Your task to perform on an android device: open a bookmark in the chrome app Image 0: 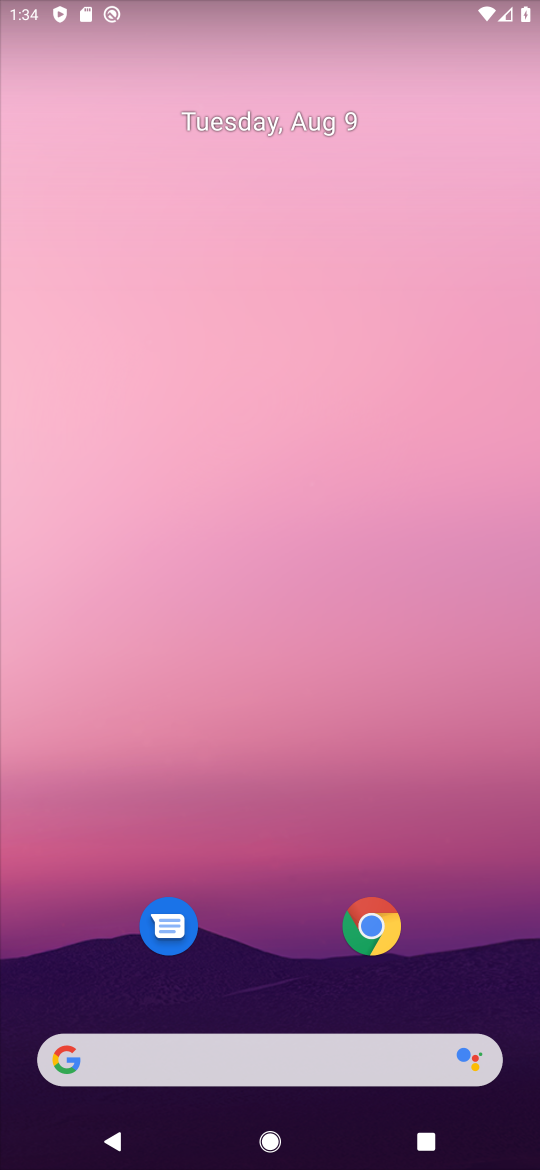
Step 0: click (358, 936)
Your task to perform on an android device: open a bookmark in the chrome app Image 1: 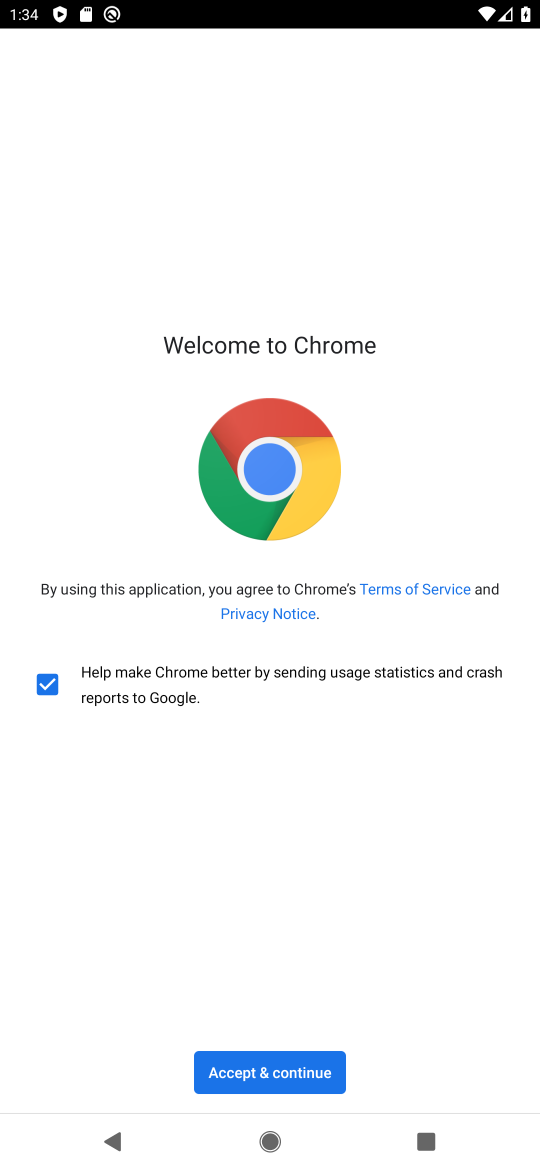
Step 1: click (291, 1096)
Your task to perform on an android device: open a bookmark in the chrome app Image 2: 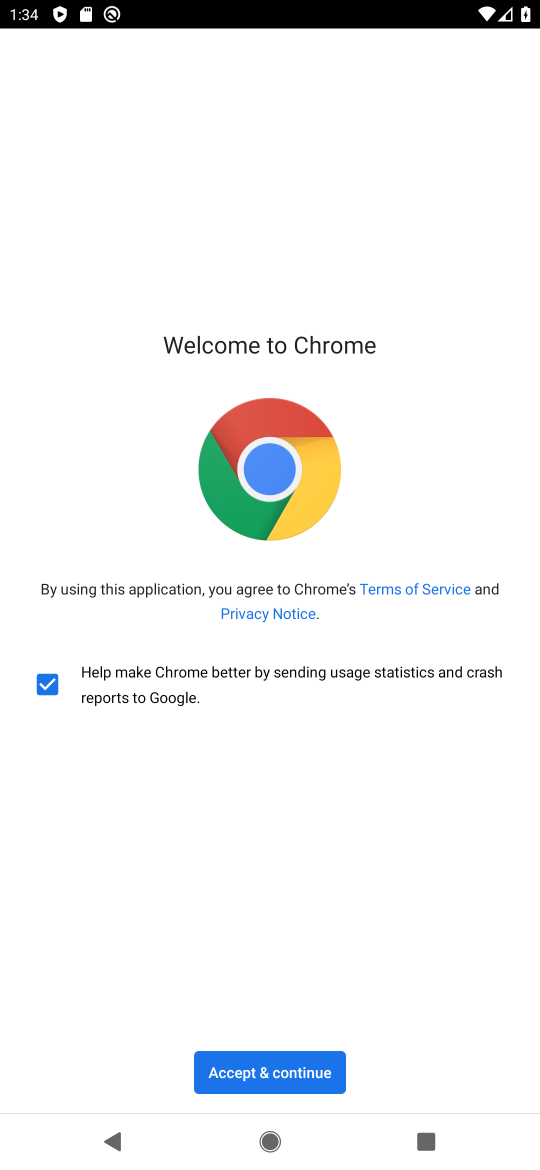
Step 2: click (331, 1075)
Your task to perform on an android device: open a bookmark in the chrome app Image 3: 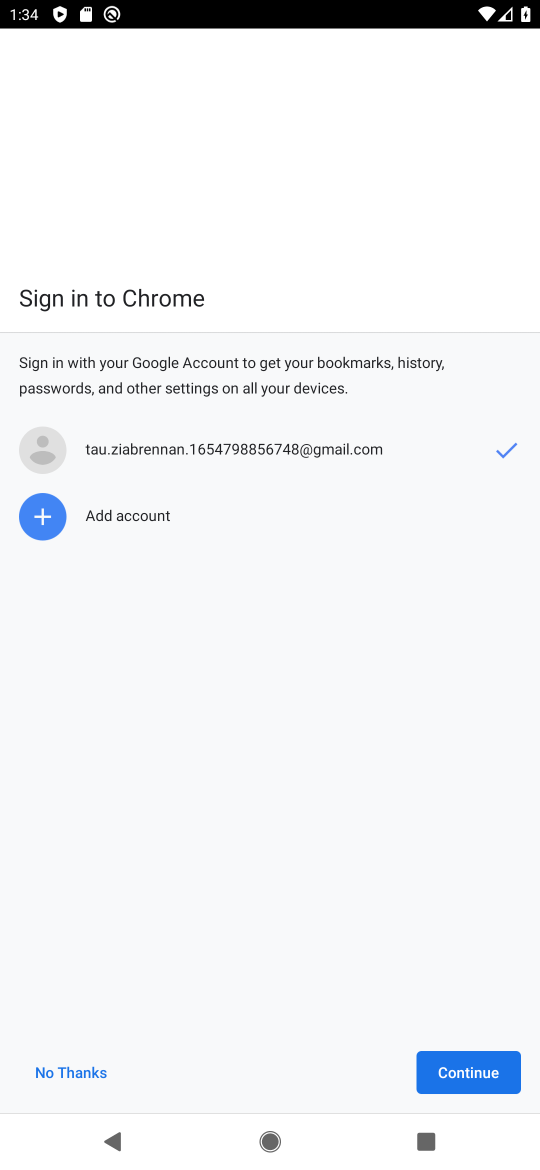
Step 3: click (485, 1086)
Your task to perform on an android device: open a bookmark in the chrome app Image 4: 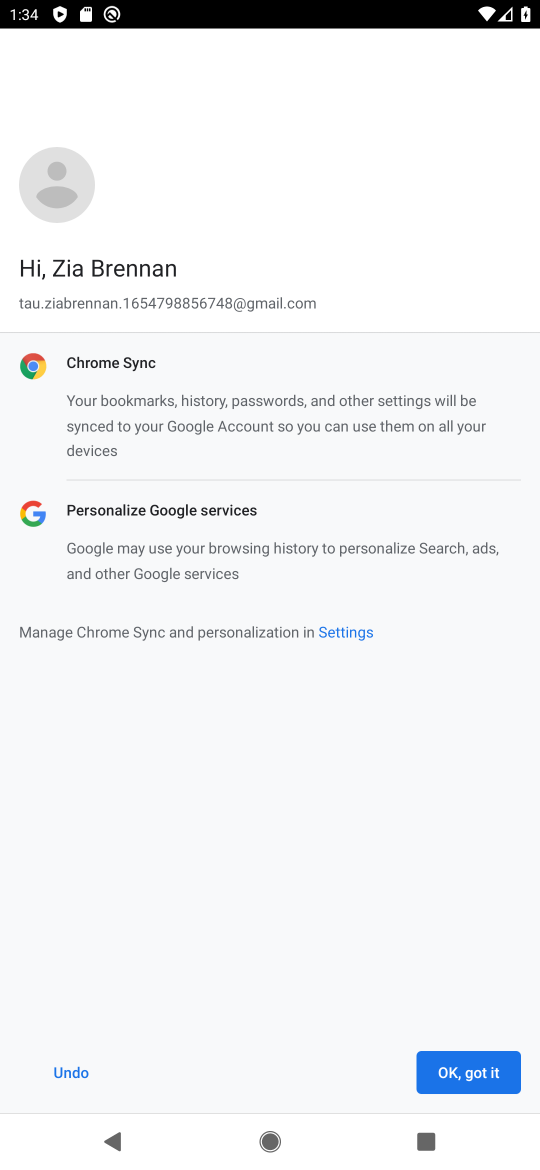
Step 4: click (485, 1086)
Your task to perform on an android device: open a bookmark in the chrome app Image 5: 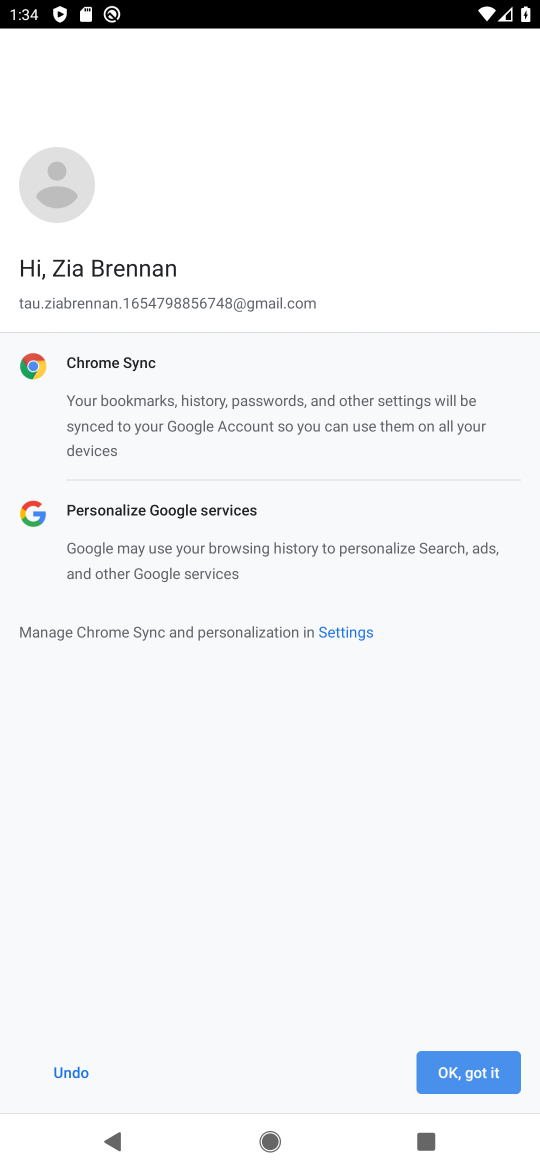
Step 5: click (485, 1086)
Your task to perform on an android device: open a bookmark in the chrome app Image 6: 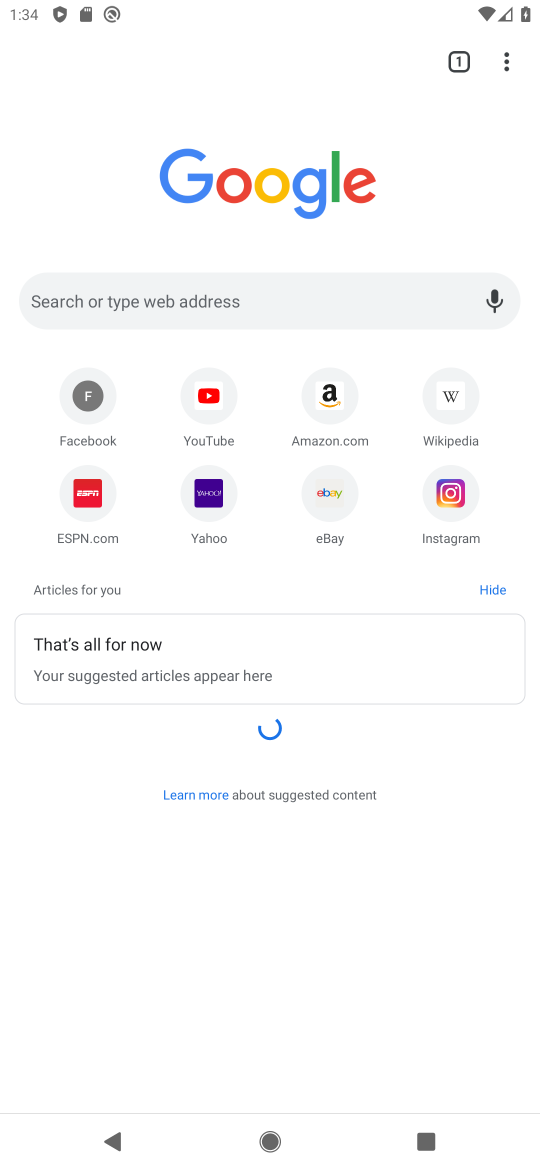
Step 6: task complete